Your task to perform on an android device: make emails show in primary in the gmail app Image 0: 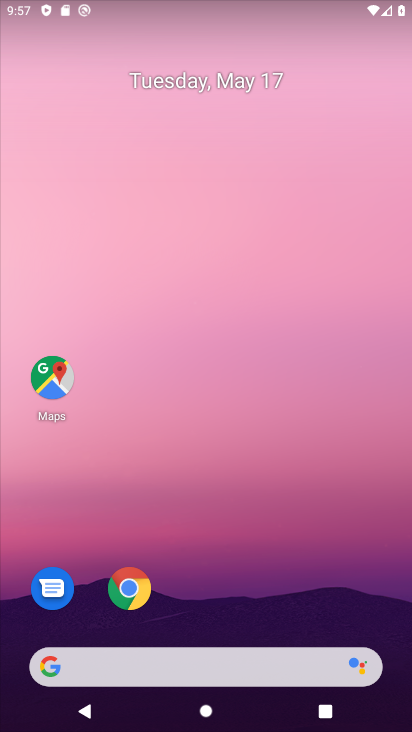
Step 0: drag from (297, 616) to (227, 192)
Your task to perform on an android device: make emails show in primary in the gmail app Image 1: 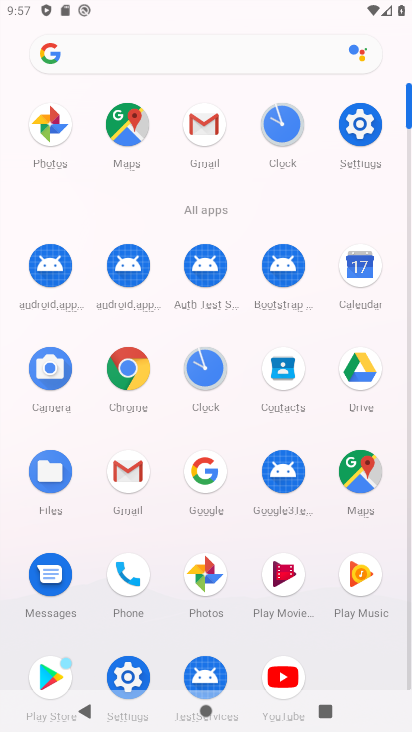
Step 1: click (216, 149)
Your task to perform on an android device: make emails show in primary in the gmail app Image 2: 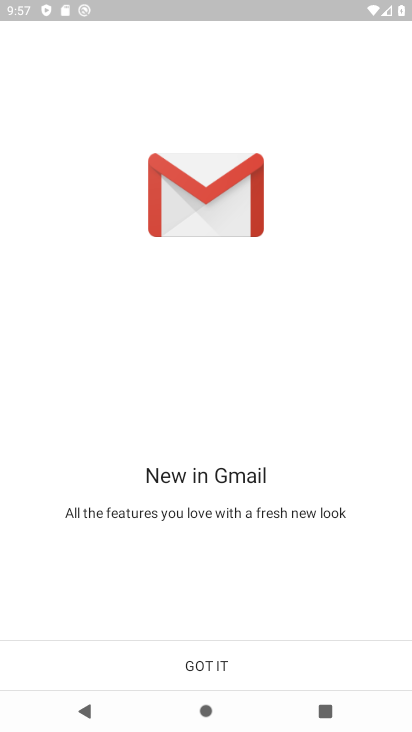
Step 2: click (208, 663)
Your task to perform on an android device: make emails show in primary in the gmail app Image 3: 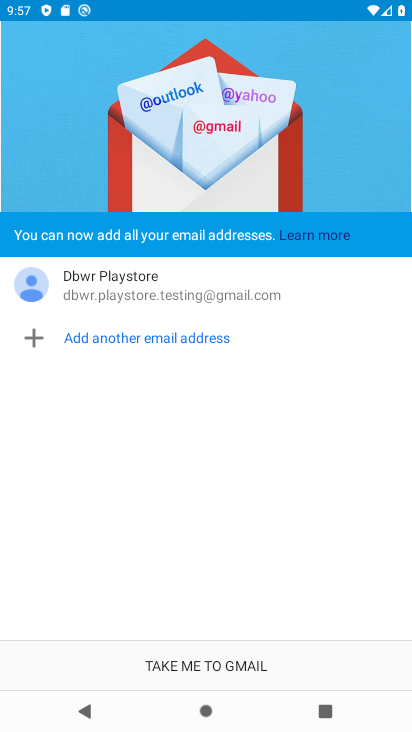
Step 3: click (208, 663)
Your task to perform on an android device: make emails show in primary in the gmail app Image 4: 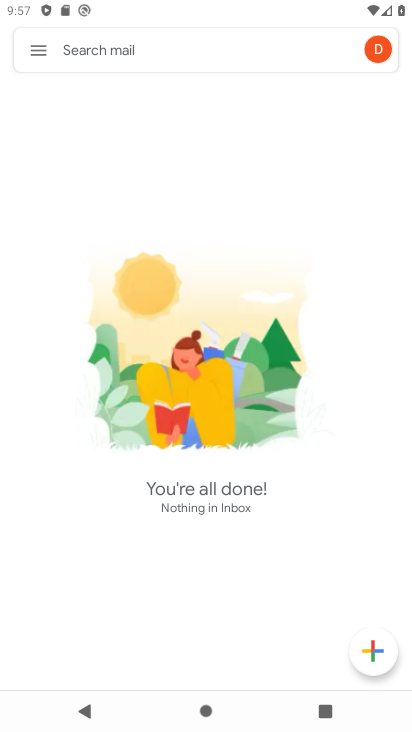
Step 4: click (34, 47)
Your task to perform on an android device: make emails show in primary in the gmail app Image 5: 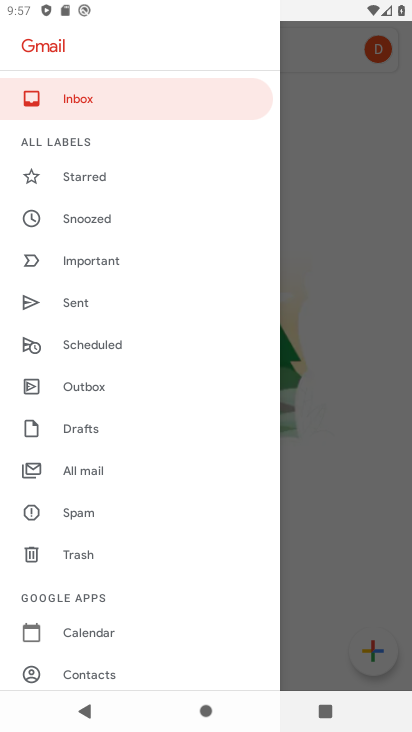
Step 5: drag from (160, 657) to (151, 207)
Your task to perform on an android device: make emails show in primary in the gmail app Image 6: 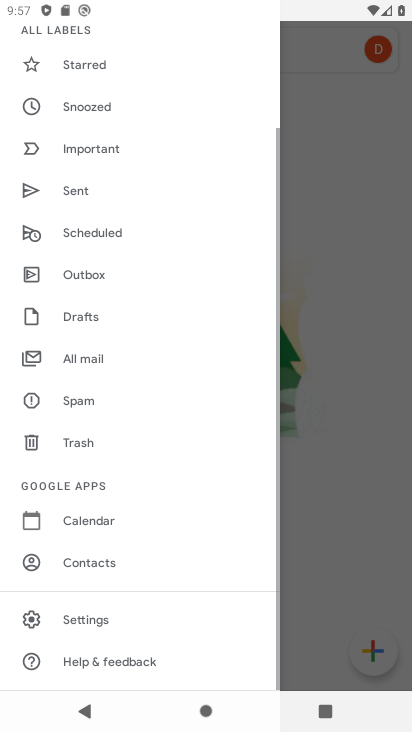
Step 6: click (155, 620)
Your task to perform on an android device: make emails show in primary in the gmail app Image 7: 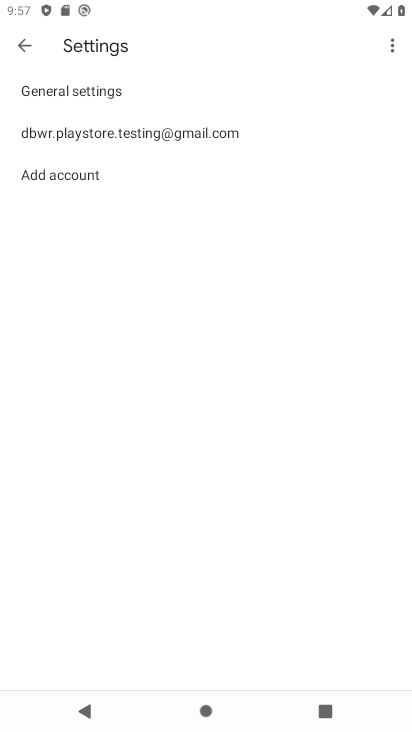
Step 7: click (213, 132)
Your task to perform on an android device: make emails show in primary in the gmail app Image 8: 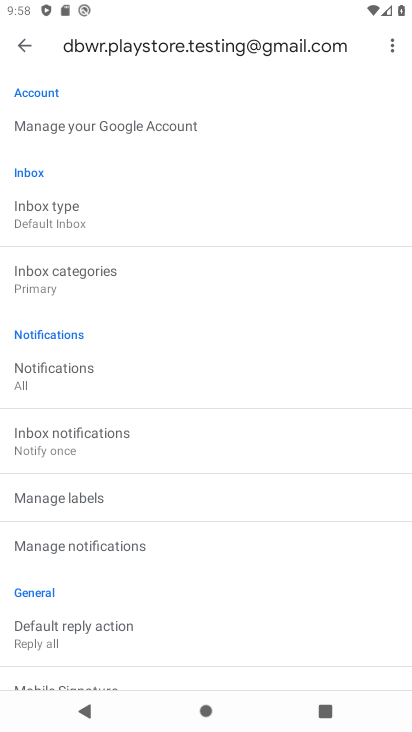
Step 8: task complete